Your task to perform on an android device: Do I have any events today? Image 0: 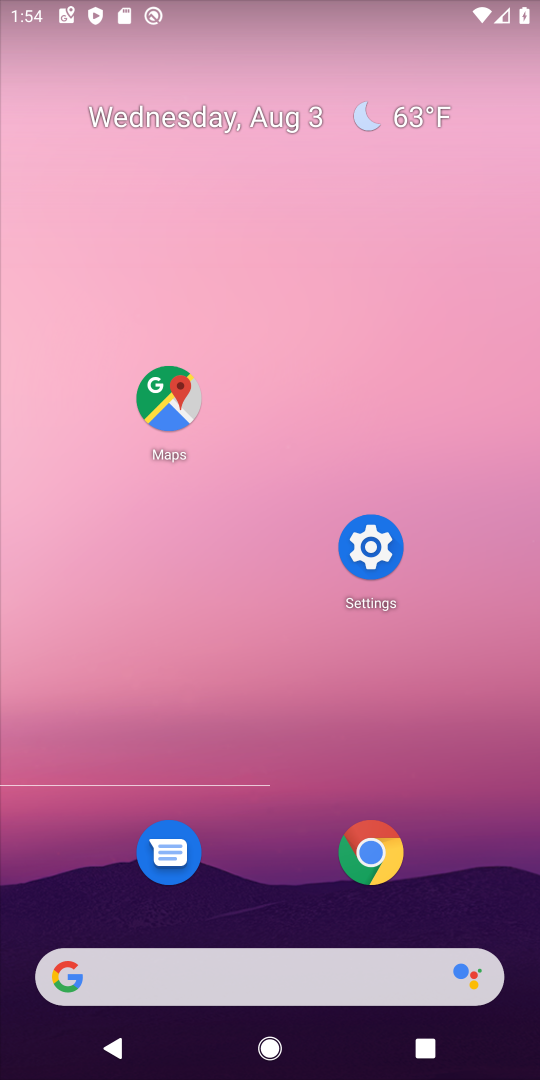
Step 0: press home button
Your task to perform on an android device: Do I have any events today? Image 1: 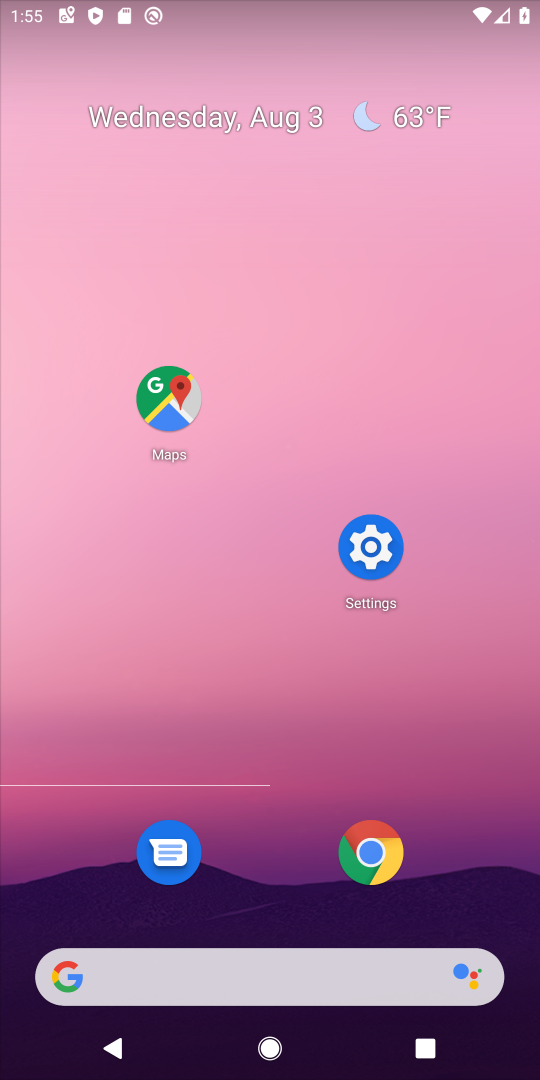
Step 1: click (179, 968)
Your task to perform on an android device: Do I have any events today? Image 2: 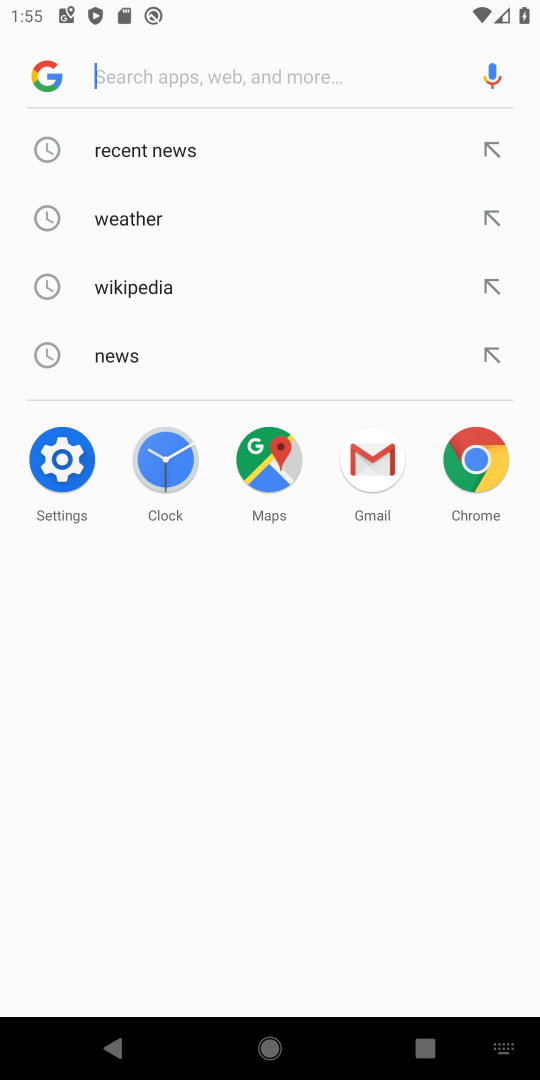
Step 2: press home button
Your task to perform on an android device: Do I have any events today? Image 3: 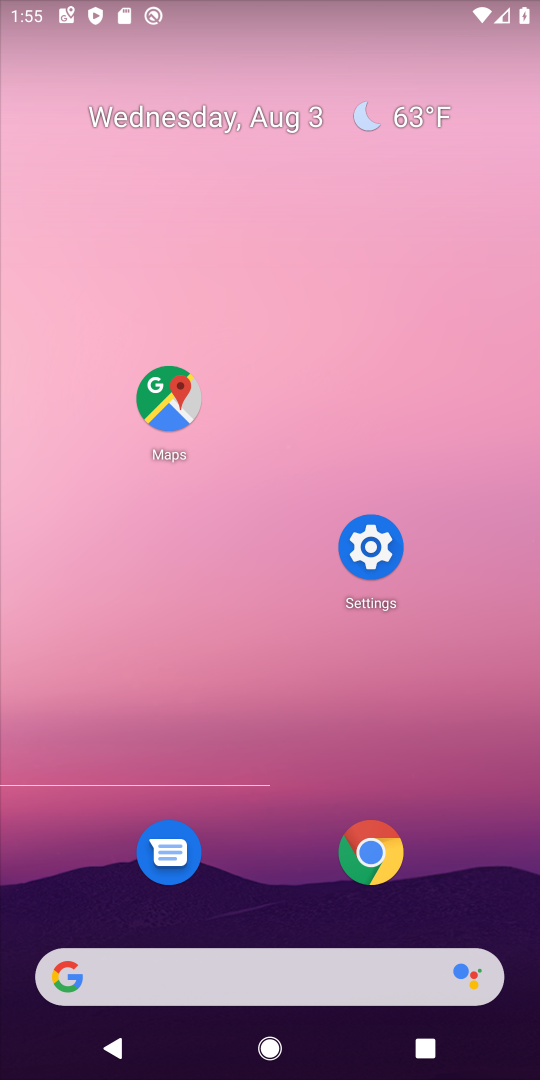
Step 3: drag from (265, 859) to (399, 97)
Your task to perform on an android device: Do I have any events today? Image 4: 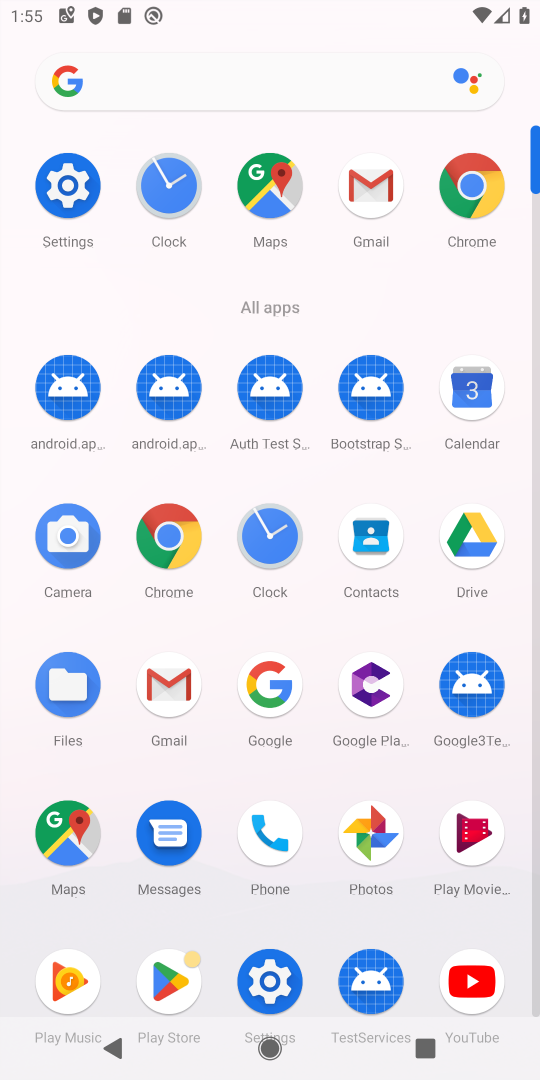
Step 4: click (474, 403)
Your task to perform on an android device: Do I have any events today? Image 5: 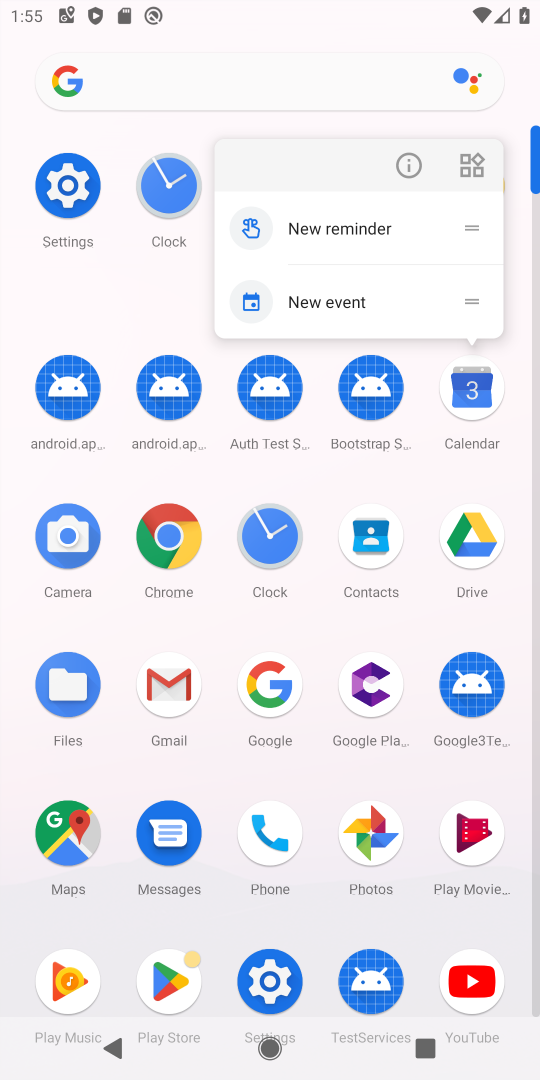
Step 5: click (482, 390)
Your task to perform on an android device: Do I have any events today? Image 6: 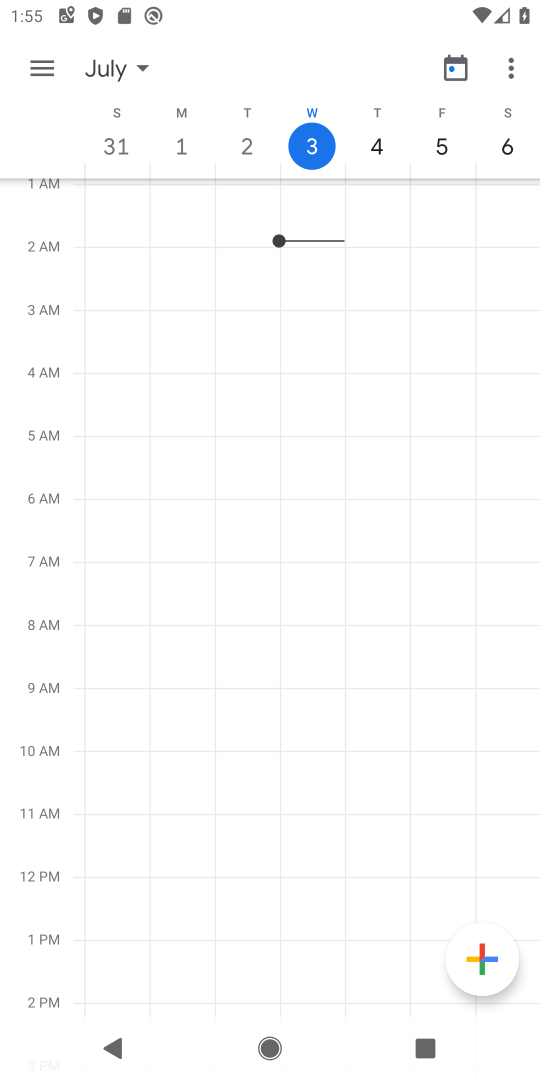
Step 6: click (116, 77)
Your task to perform on an android device: Do I have any events today? Image 7: 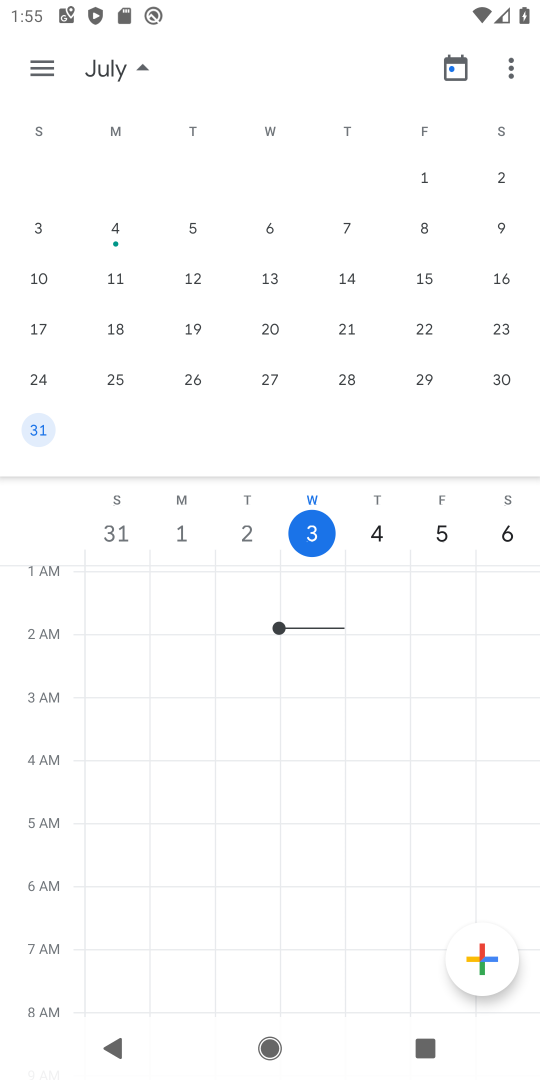
Step 7: drag from (422, 310) to (46, 350)
Your task to perform on an android device: Do I have any events today? Image 8: 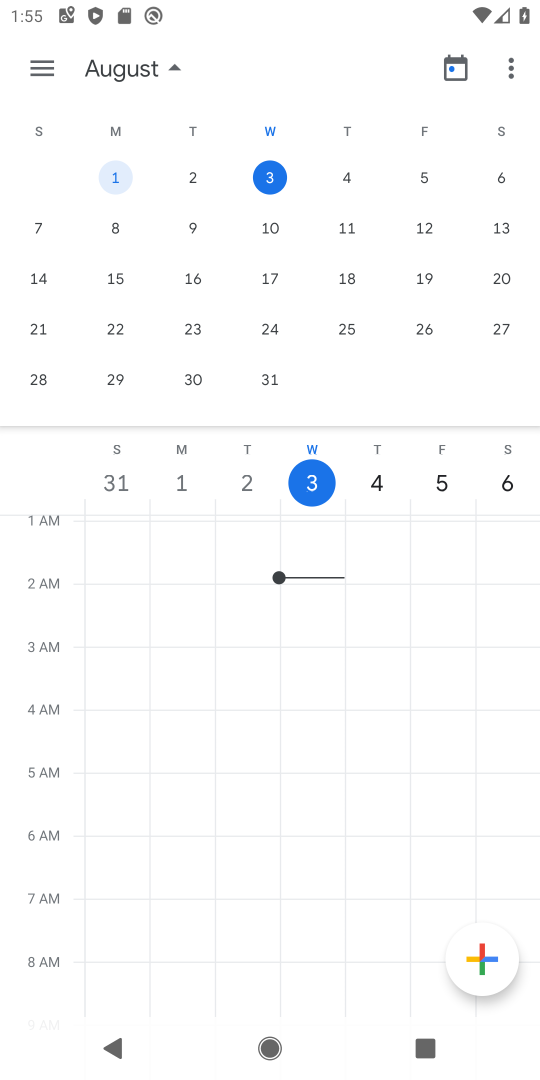
Step 8: click (256, 164)
Your task to perform on an android device: Do I have any events today? Image 9: 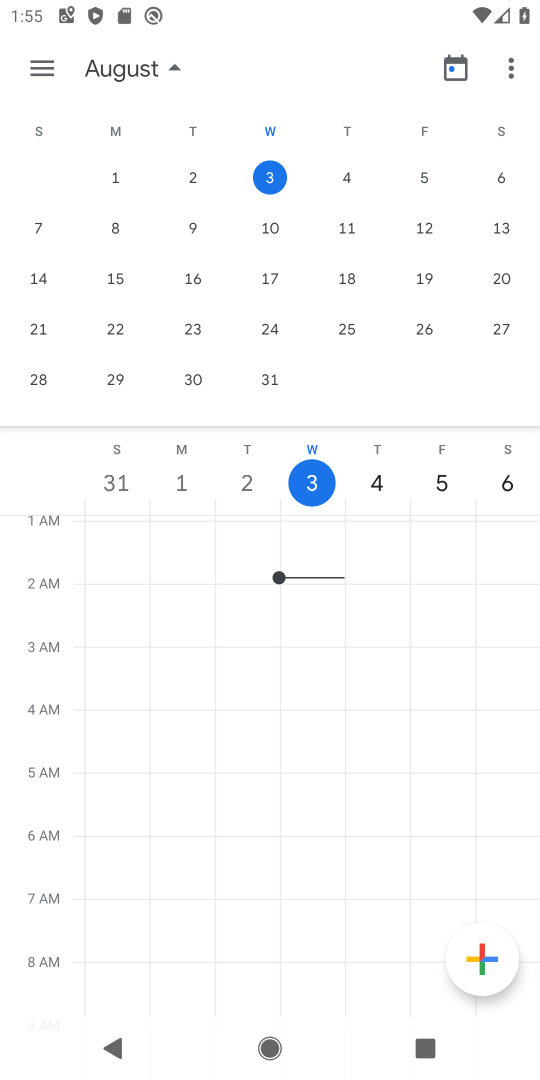
Step 9: click (48, 67)
Your task to perform on an android device: Do I have any events today? Image 10: 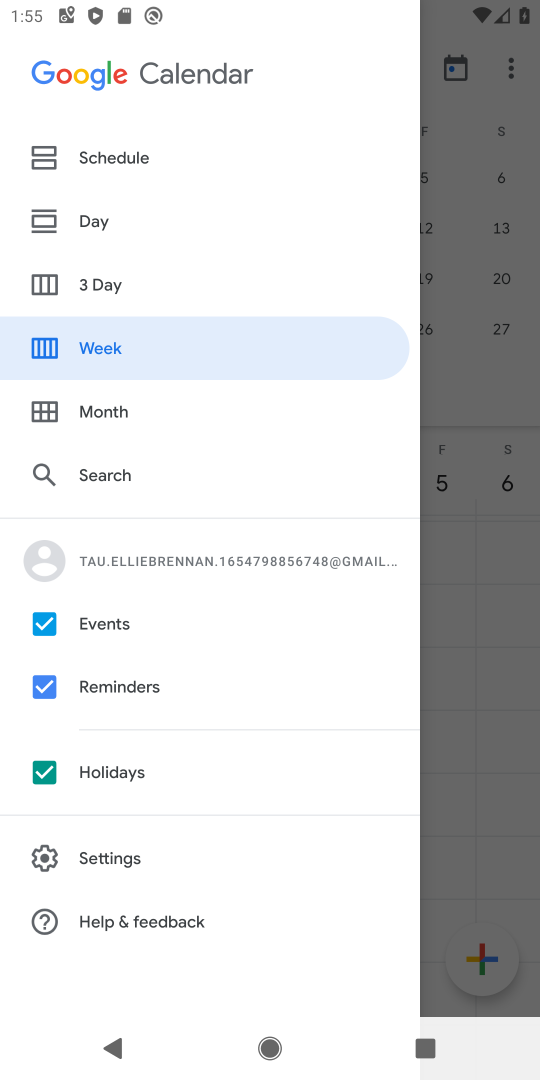
Step 10: click (105, 225)
Your task to perform on an android device: Do I have any events today? Image 11: 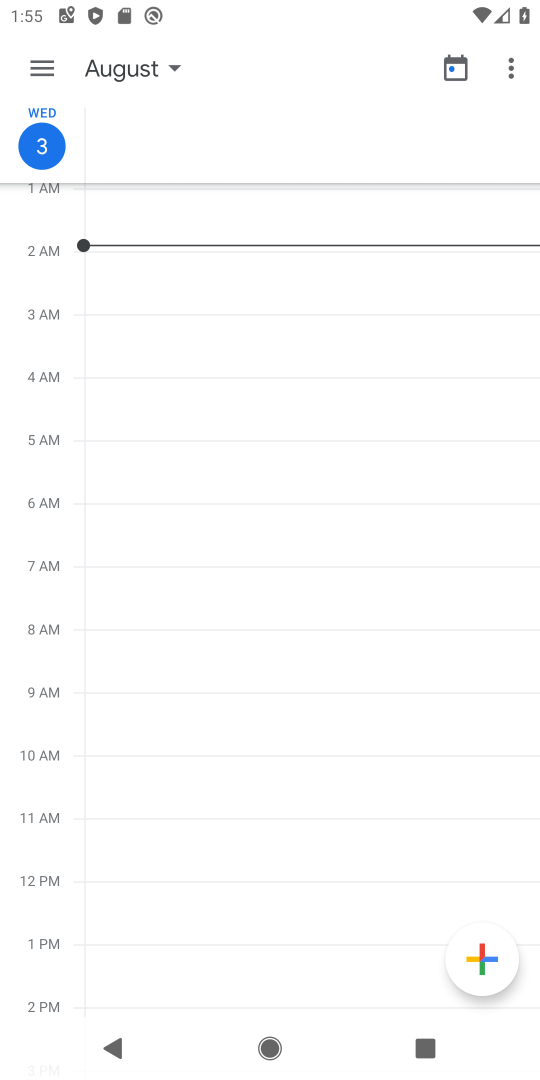
Step 11: click (40, 52)
Your task to perform on an android device: Do I have any events today? Image 12: 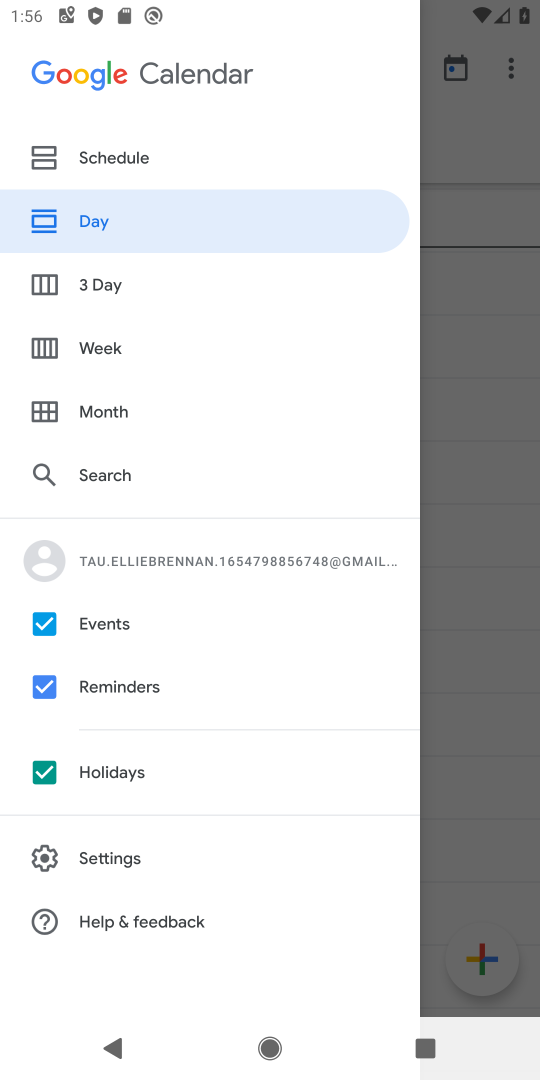
Step 12: click (146, 180)
Your task to perform on an android device: Do I have any events today? Image 13: 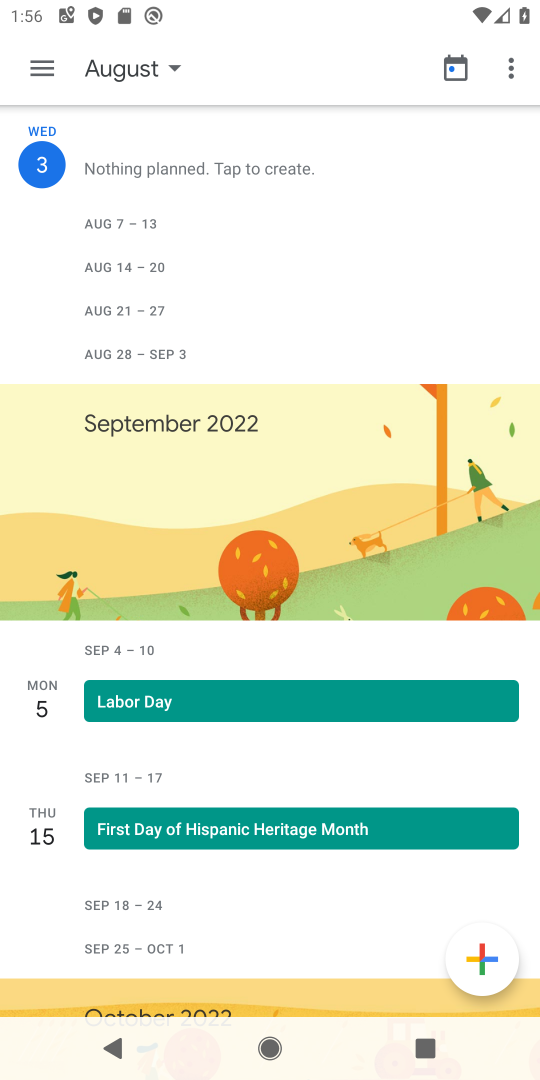
Step 13: task complete